Your task to perform on an android device: What's the weather today? Image 0: 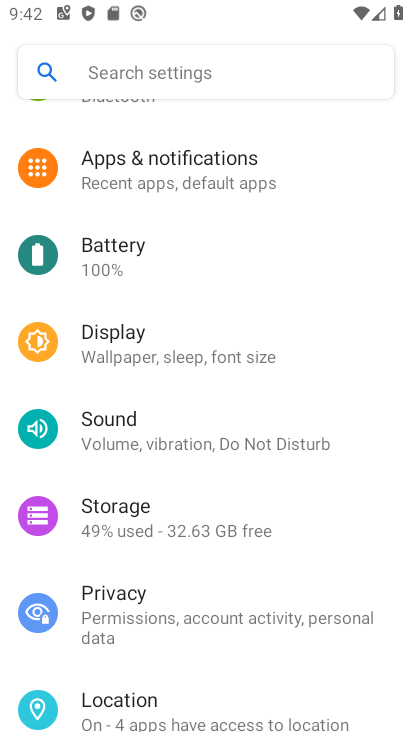
Step 0: press home button
Your task to perform on an android device: What's the weather today? Image 1: 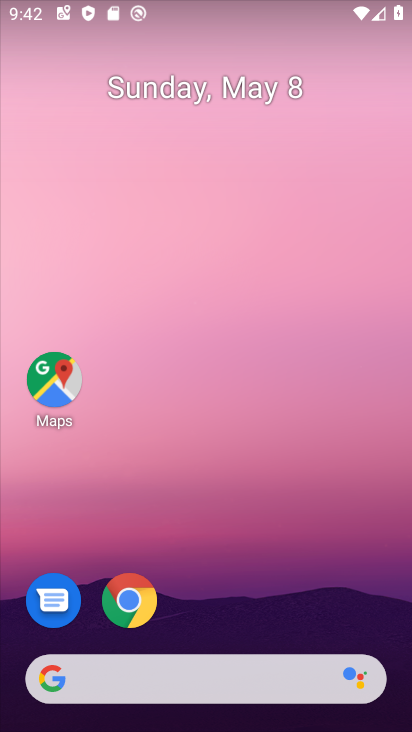
Step 1: drag from (33, 264) to (369, 170)
Your task to perform on an android device: What's the weather today? Image 2: 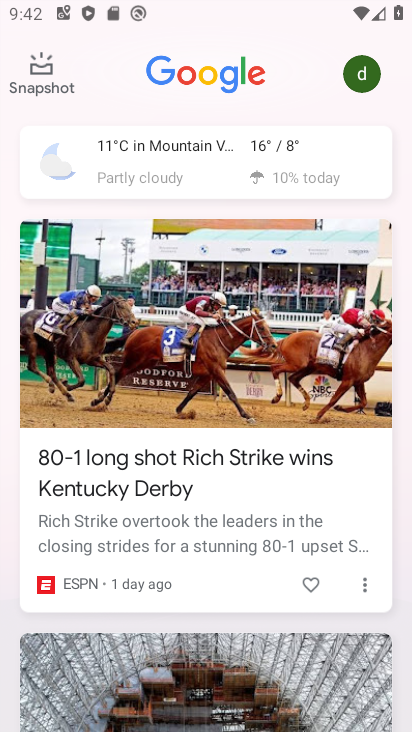
Step 2: click (68, 158)
Your task to perform on an android device: What's the weather today? Image 3: 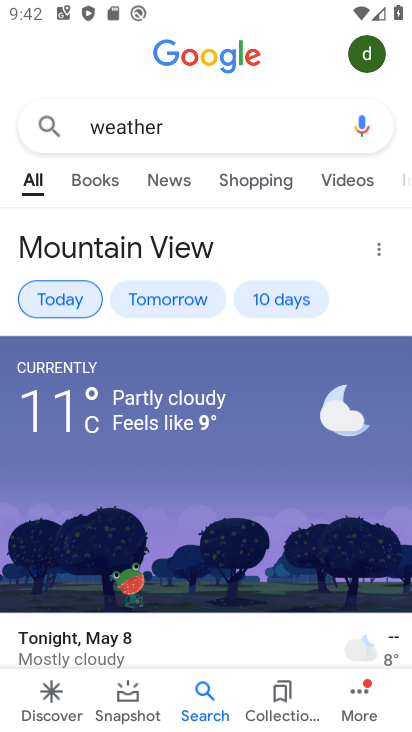
Step 3: task complete